Your task to perform on an android device: toggle translation in the chrome app Image 0: 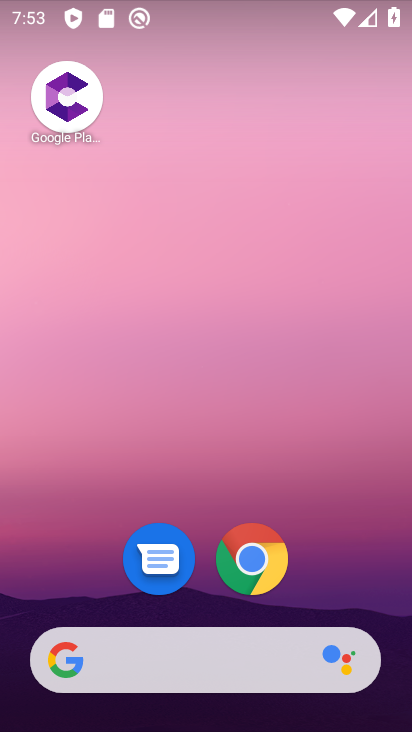
Step 0: click (275, 553)
Your task to perform on an android device: toggle translation in the chrome app Image 1: 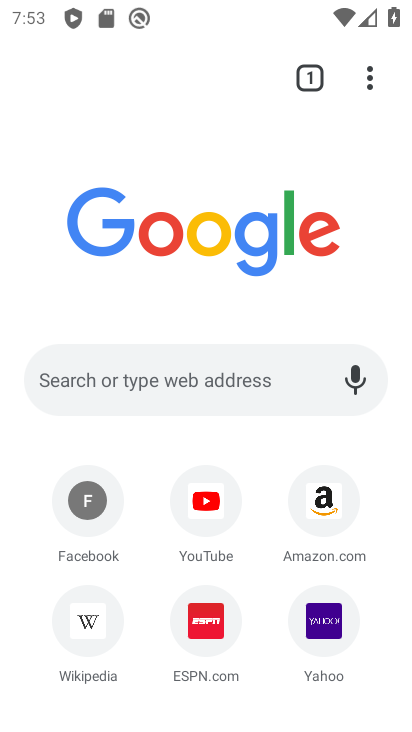
Step 1: click (371, 86)
Your task to perform on an android device: toggle translation in the chrome app Image 2: 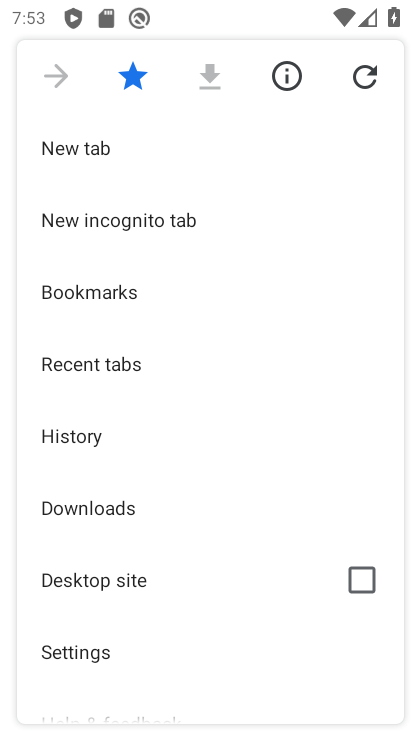
Step 2: drag from (229, 579) to (183, 339)
Your task to perform on an android device: toggle translation in the chrome app Image 3: 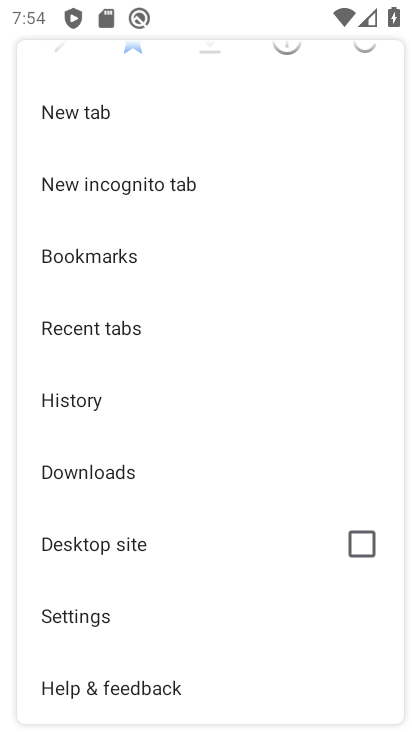
Step 3: click (151, 617)
Your task to perform on an android device: toggle translation in the chrome app Image 4: 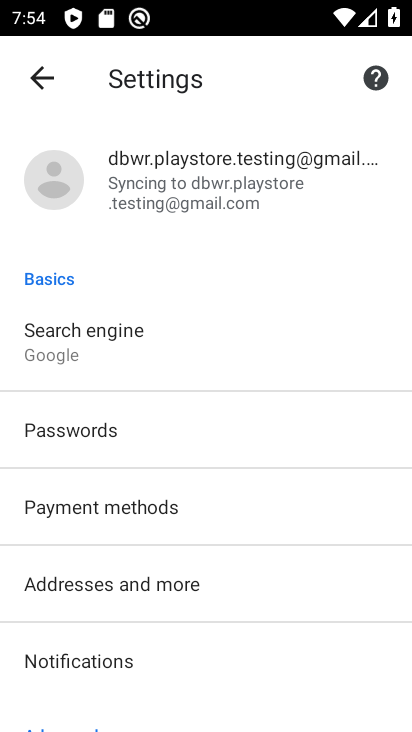
Step 4: drag from (161, 607) to (89, 347)
Your task to perform on an android device: toggle translation in the chrome app Image 5: 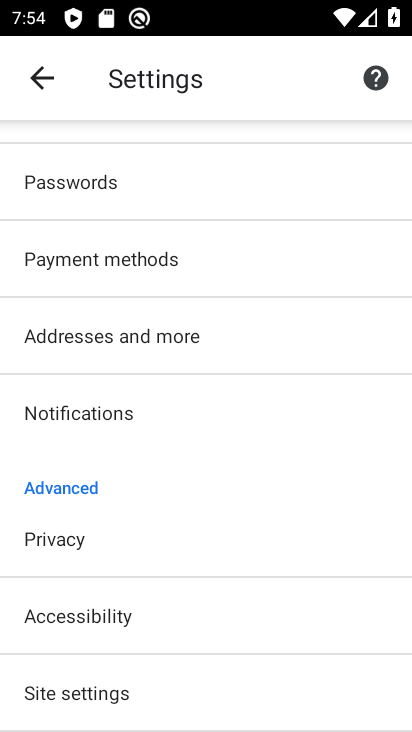
Step 5: drag from (172, 638) to (126, 358)
Your task to perform on an android device: toggle translation in the chrome app Image 6: 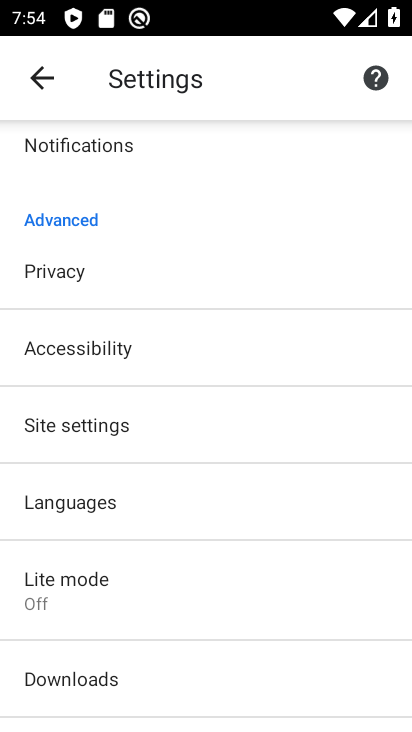
Step 6: click (137, 494)
Your task to perform on an android device: toggle translation in the chrome app Image 7: 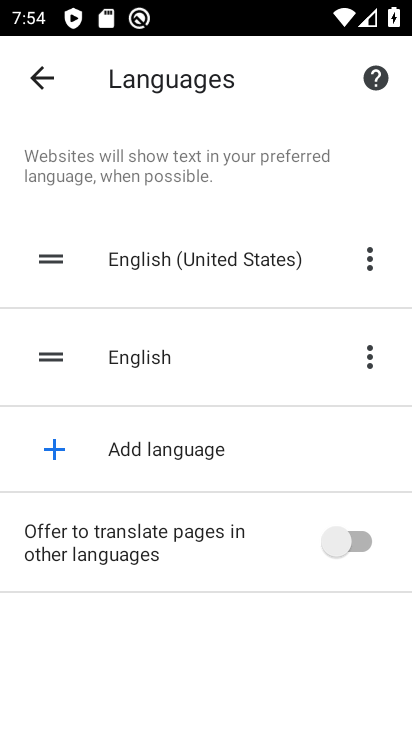
Step 7: click (337, 546)
Your task to perform on an android device: toggle translation in the chrome app Image 8: 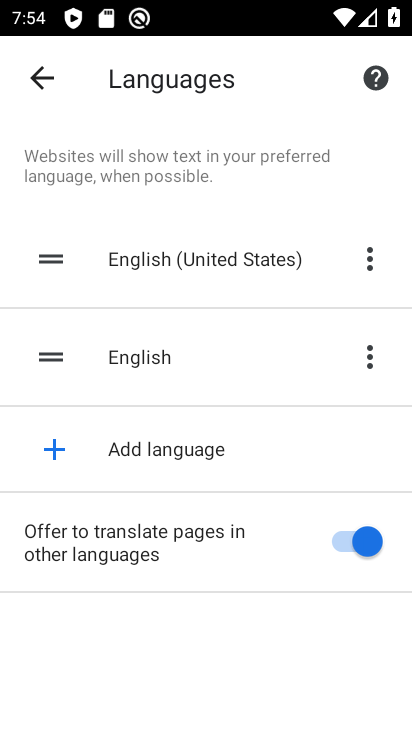
Step 8: task complete